Your task to perform on an android device: What is the recent news? Image 0: 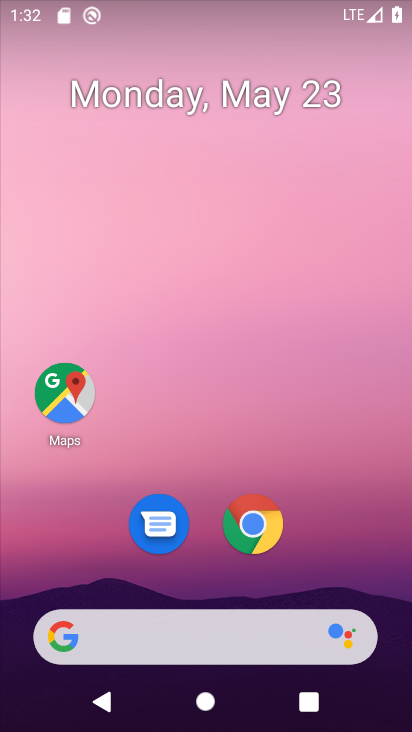
Step 0: click (231, 633)
Your task to perform on an android device: What is the recent news? Image 1: 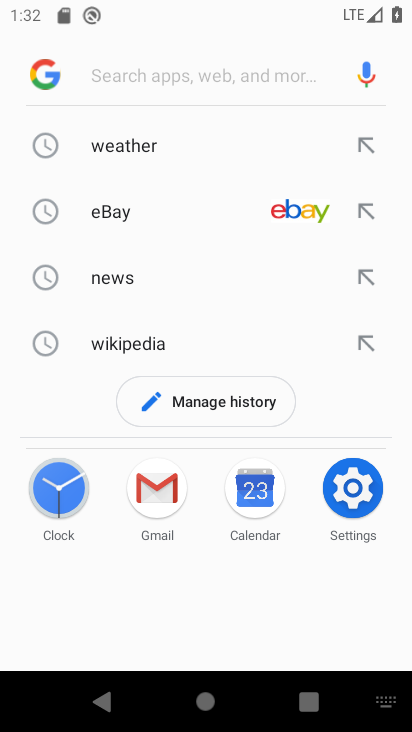
Step 1: type "recent news"
Your task to perform on an android device: What is the recent news? Image 2: 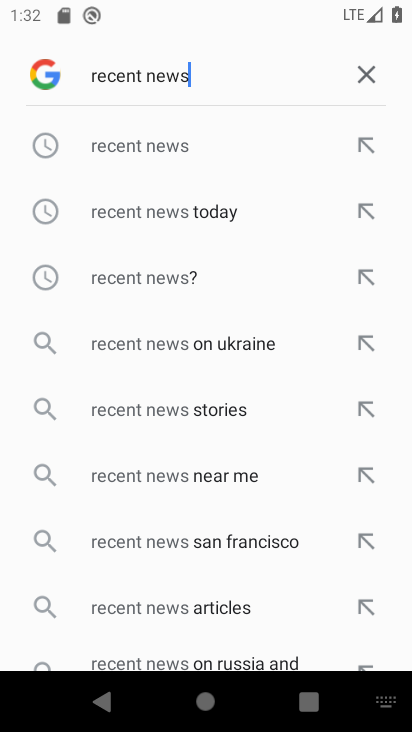
Step 2: click (153, 212)
Your task to perform on an android device: What is the recent news? Image 3: 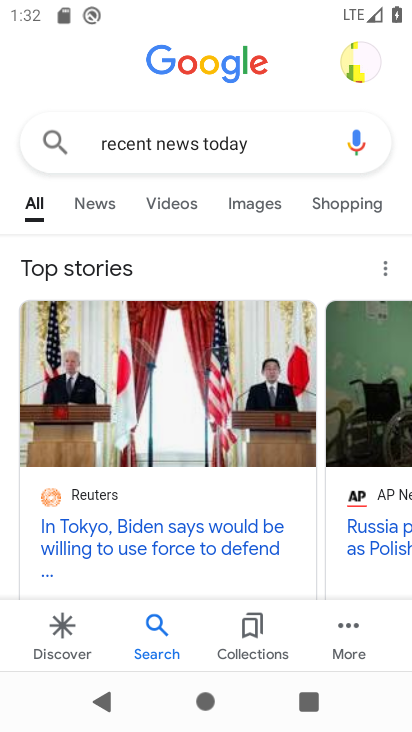
Step 3: drag from (213, 437) to (272, 140)
Your task to perform on an android device: What is the recent news? Image 4: 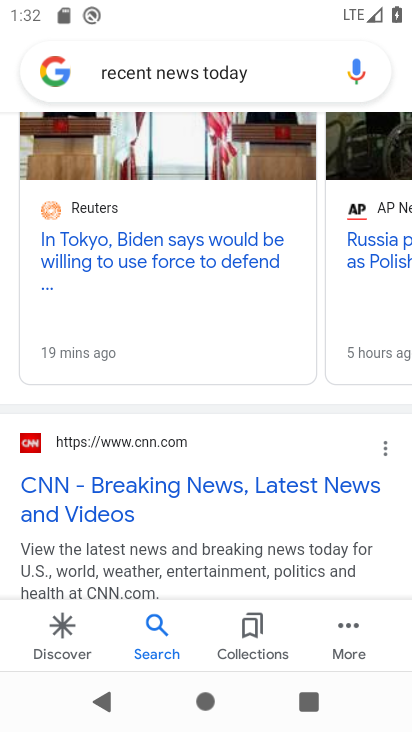
Step 4: click (221, 215)
Your task to perform on an android device: What is the recent news? Image 5: 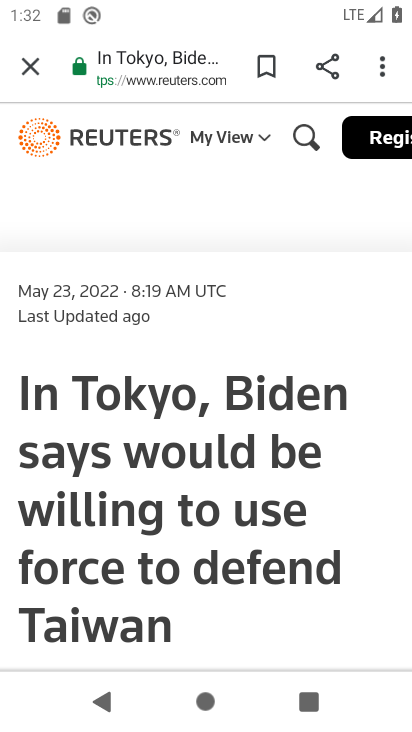
Step 5: task complete